Your task to perform on an android device: Open the web browser Image 0: 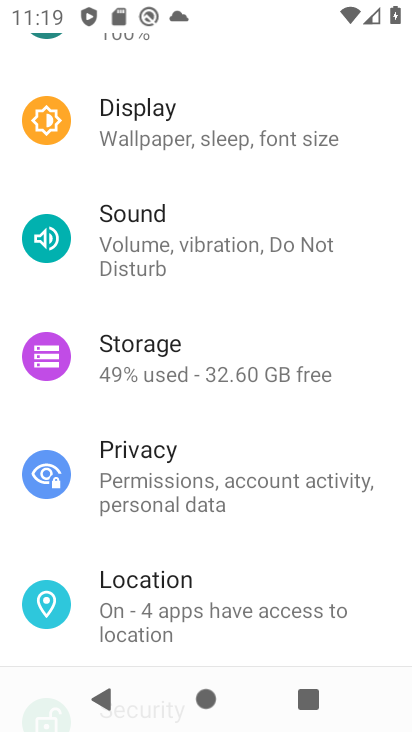
Step 0: press home button
Your task to perform on an android device: Open the web browser Image 1: 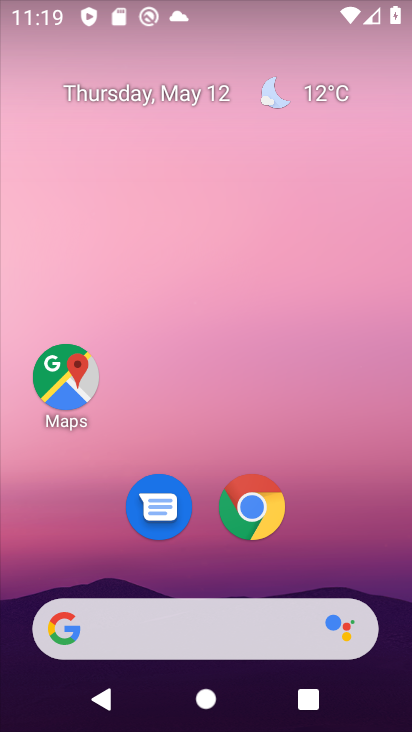
Step 1: drag from (244, 563) to (304, 68)
Your task to perform on an android device: Open the web browser Image 2: 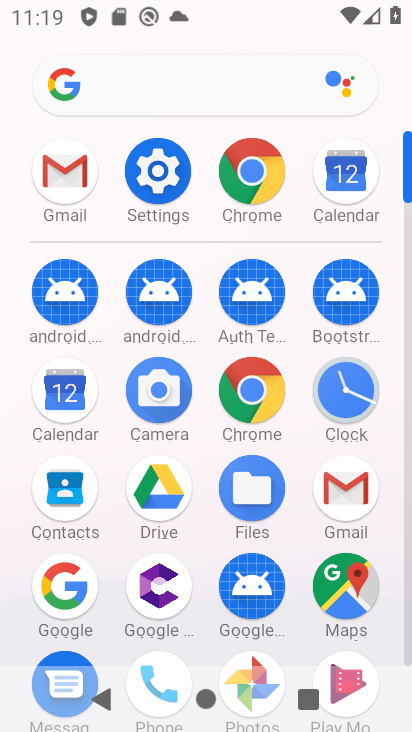
Step 2: click (245, 388)
Your task to perform on an android device: Open the web browser Image 3: 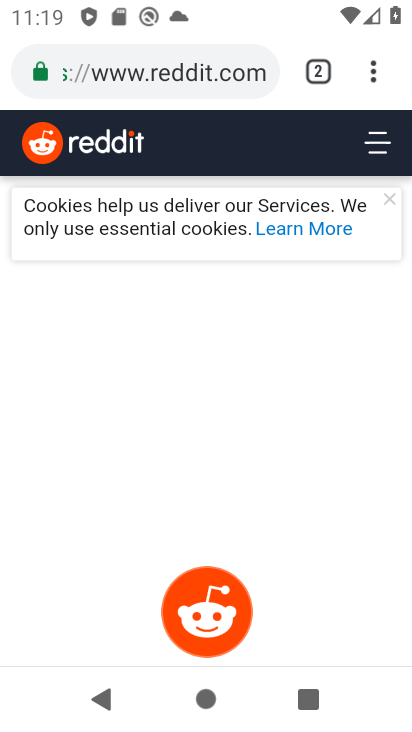
Step 3: task complete